Your task to perform on an android device: Do I have any events this weekend? Image 0: 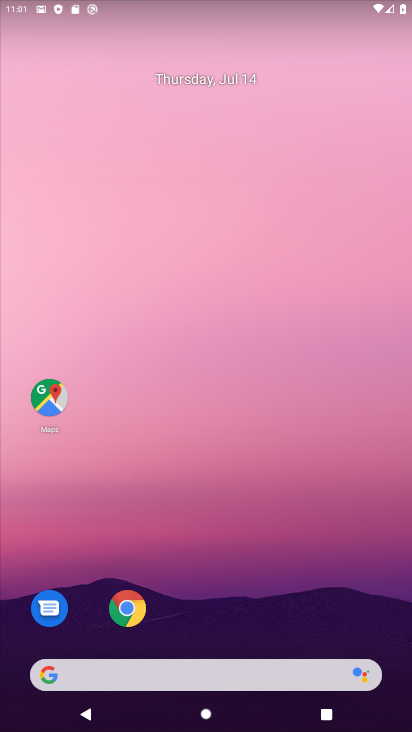
Step 0: drag from (205, 484) to (216, 160)
Your task to perform on an android device: Do I have any events this weekend? Image 1: 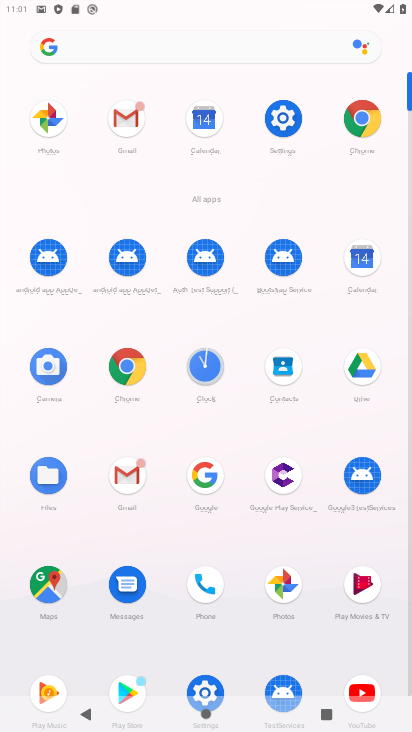
Step 1: click (365, 248)
Your task to perform on an android device: Do I have any events this weekend? Image 2: 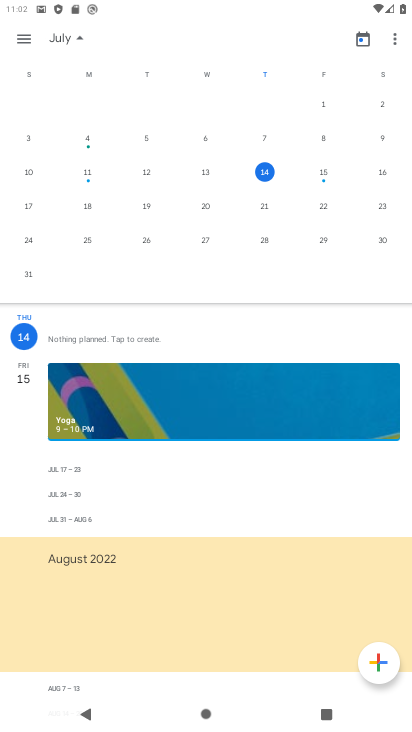
Step 2: task complete